Your task to perform on an android device: turn off notifications settings in the gmail app Image 0: 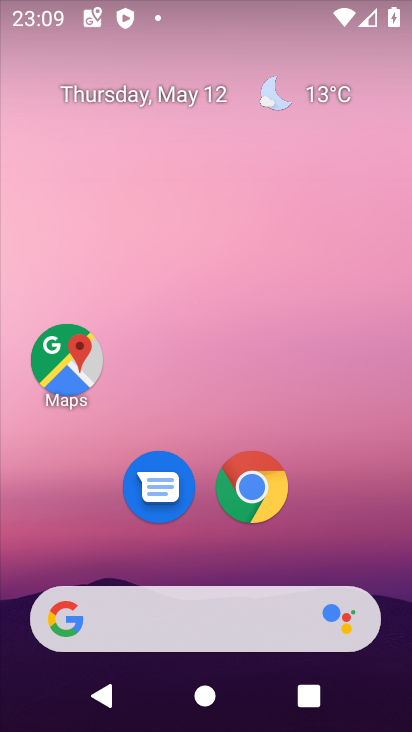
Step 0: drag from (214, 517) to (217, 154)
Your task to perform on an android device: turn off notifications settings in the gmail app Image 1: 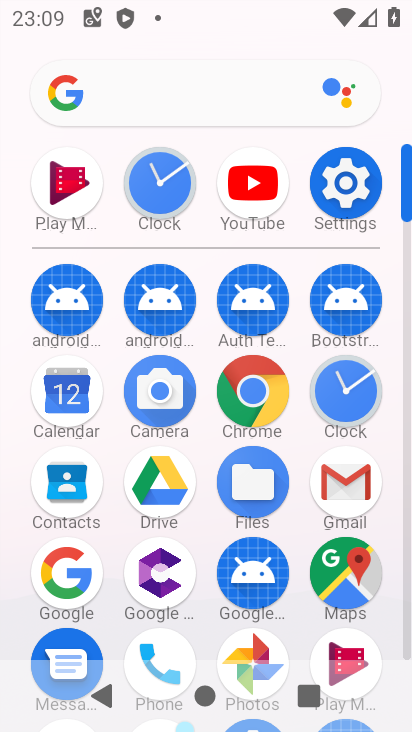
Step 1: click (347, 193)
Your task to perform on an android device: turn off notifications settings in the gmail app Image 2: 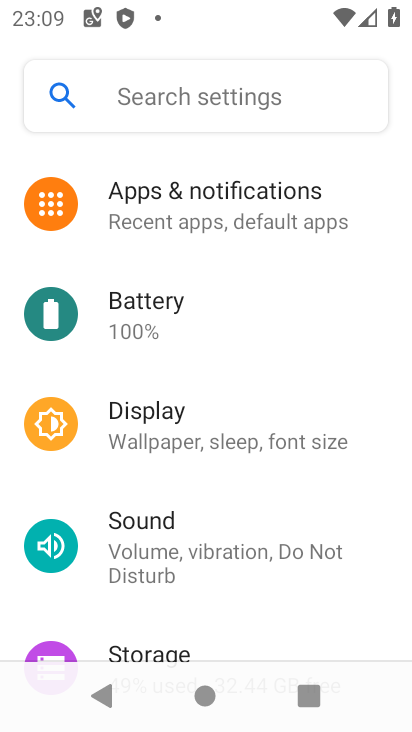
Step 2: click (220, 192)
Your task to perform on an android device: turn off notifications settings in the gmail app Image 3: 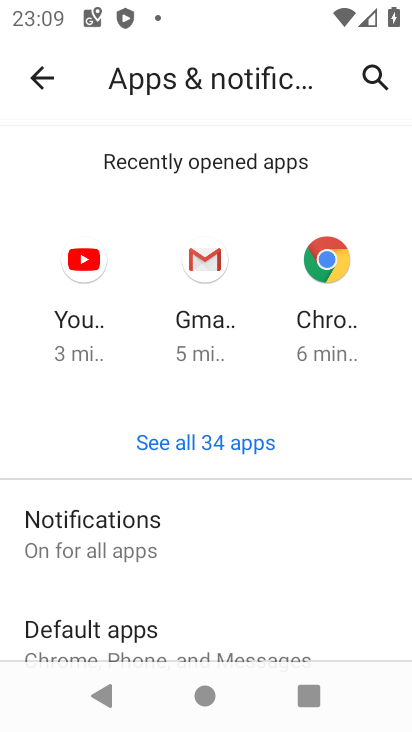
Step 3: click (208, 291)
Your task to perform on an android device: turn off notifications settings in the gmail app Image 4: 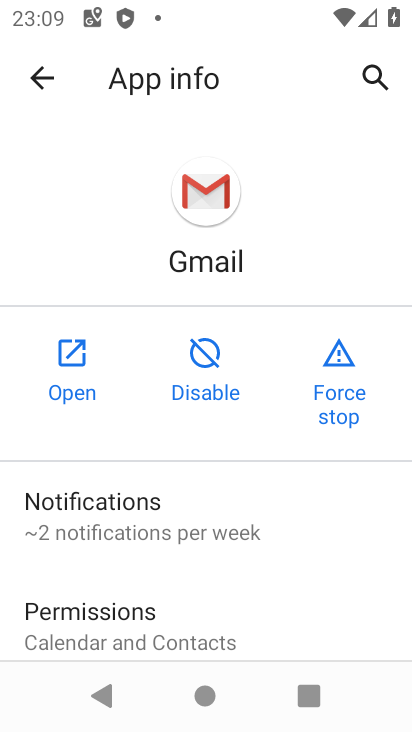
Step 4: task complete